Your task to perform on an android device: add a contact Image 0: 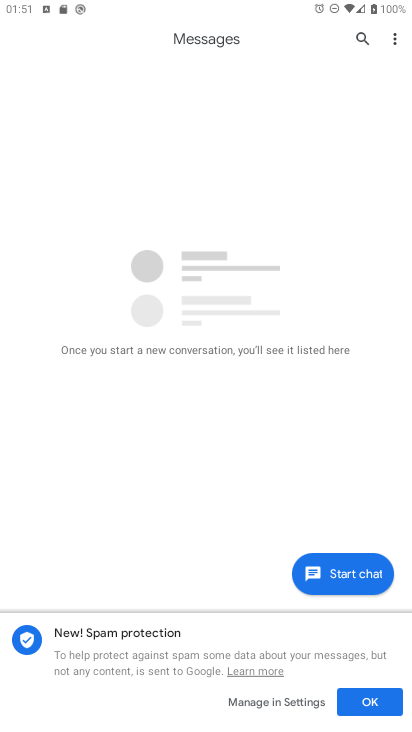
Step 0: press home button
Your task to perform on an android device: add a contact Image 1: 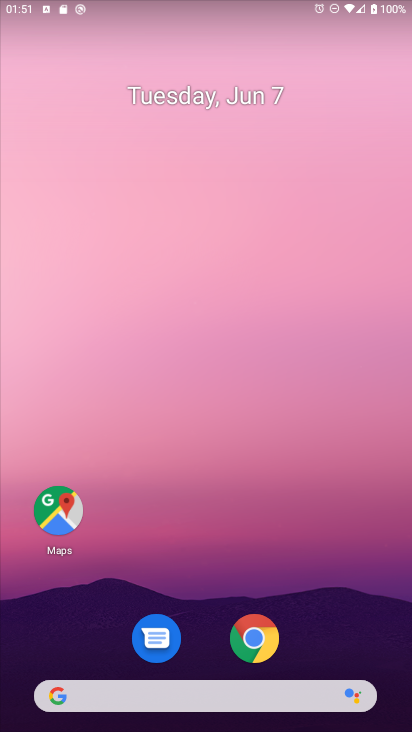
Step 1: drag from (198, 711) to (236, 229)
Your task to perform on an android device: add a contact Image 2: 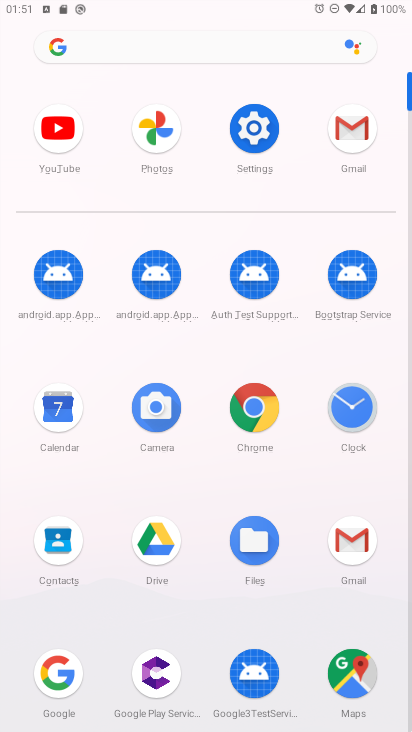
Step 2: drag from (199, 559) to (234, 347)
Your task to perform on an android device: add a contact Image 3: 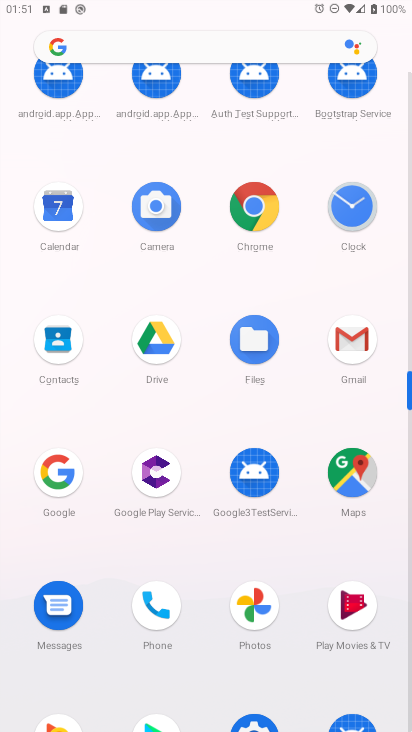
Step 3: drag from (210, 603) to (224, 282)
Your task to perform on an android device: add a contact Image 4: 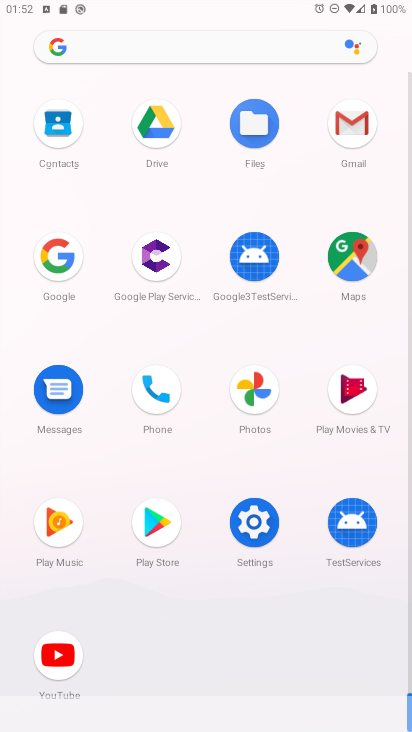
Step 4: click (170, 391)
Your task to perform on an android device: add a contact Image 5: 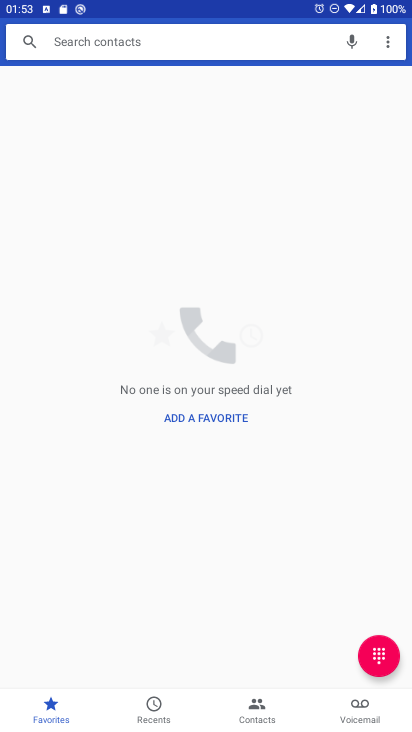
Step 5: click (256, 716)
Your task to perform on an android device: add a contact Image 6: 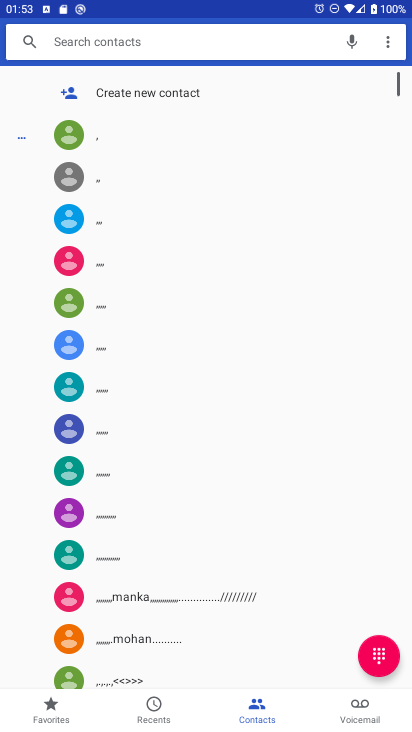
Step 6: click (116, 73)
Your task to perform on an android device: add a contact Image 7: 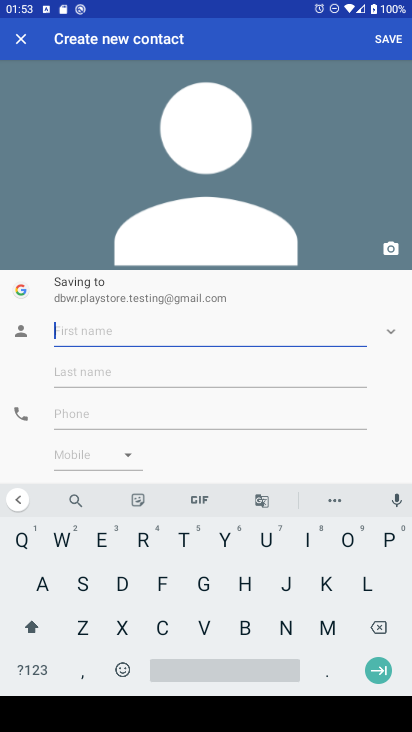
Step 7: click (122, 90)
Your task to perform on an android device: add a contact Image 8: 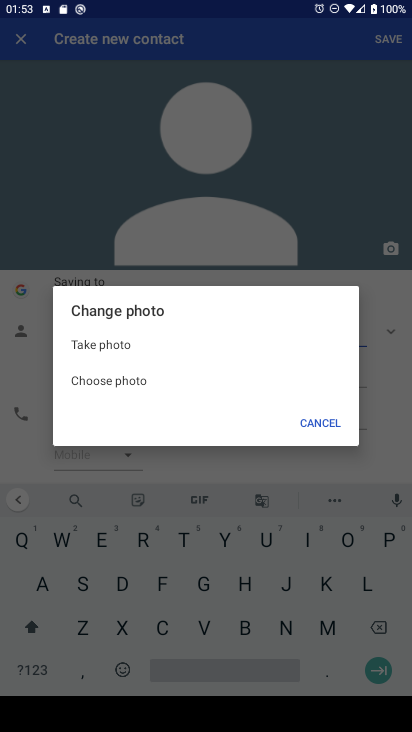
Step 8: click (145, 612)
Your task to perform on an android device: add a contact Image 9: 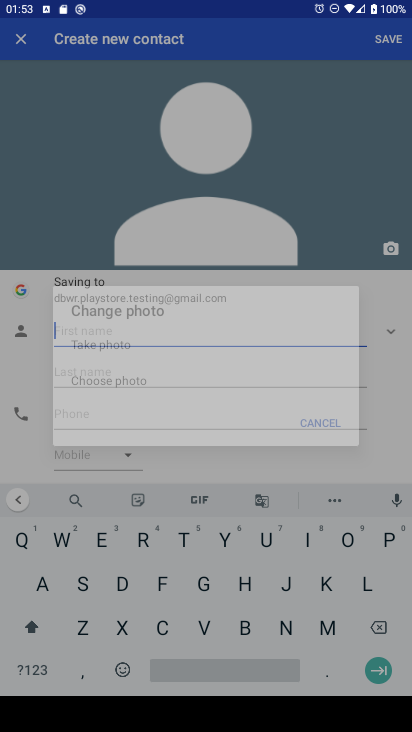
Step 9: click (242, 591)
Your task to perform on an android device: add a contact Image 10: 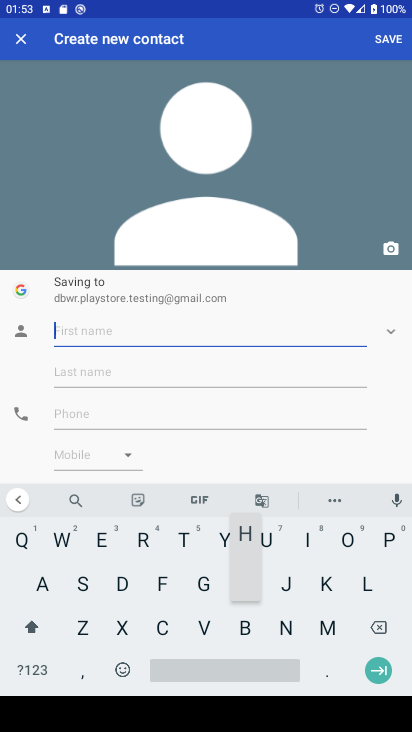
Step 10: click (67, 556)
Your task to perform on an android device: add a contact Image 11: 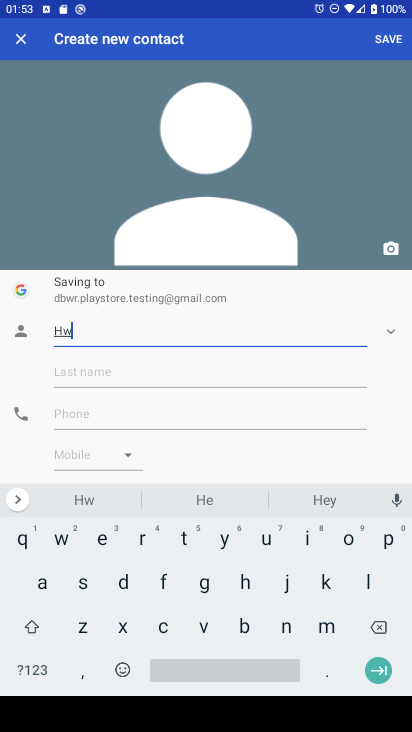
Step 11: click (326, 418)
Your task to perform on an android device: add a contact Image 12: 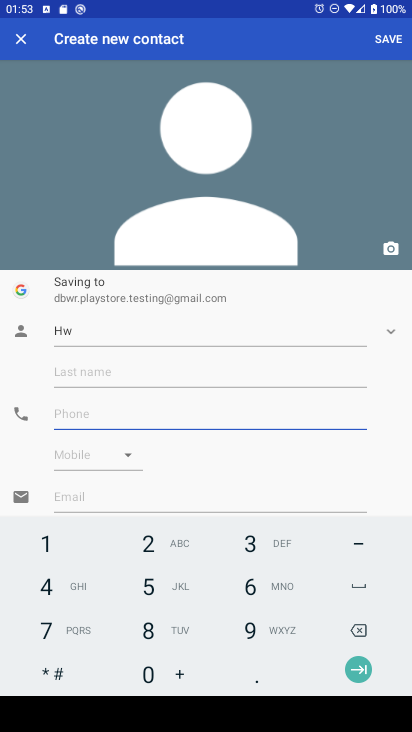
Step 12: click (229, 588)
Your task to perform on an android device: add a contact Image 13: 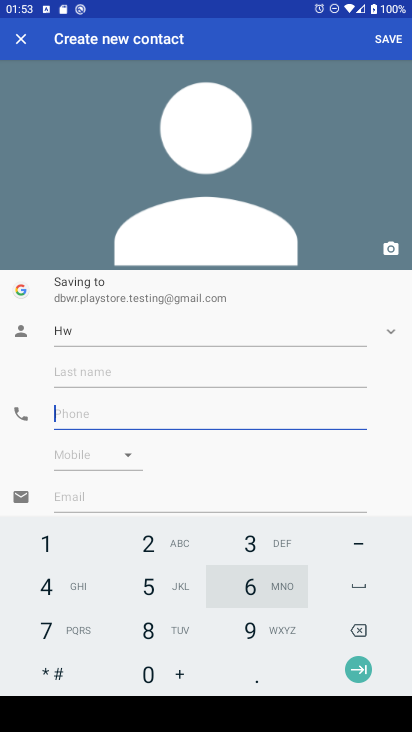
Step 13: click (165, 591)
Your task to perform on an android device: add a contact Image 14: 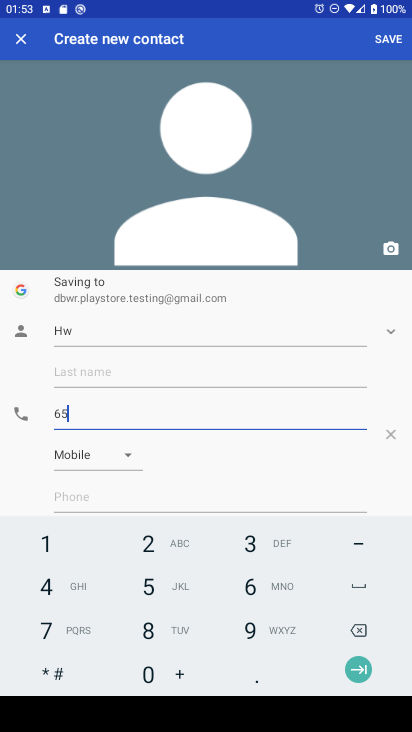
Step 14: click (138, 612)
Your task to perform on an android device: add a contact Image 15: 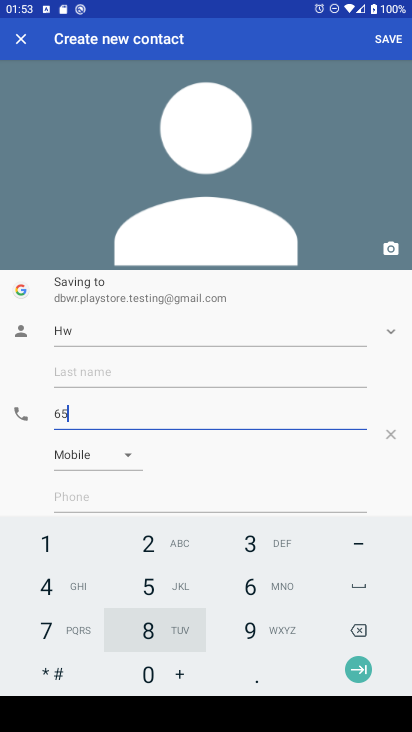
Step 15: click (235, 639)
Your task to perform on an android device: add a contact Image 16: 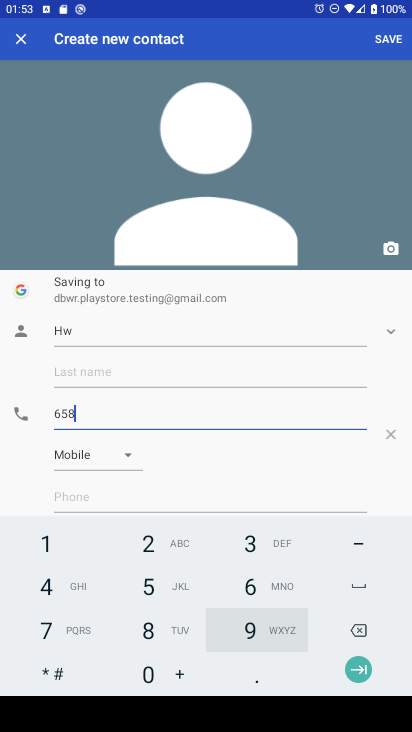
Step 16: click (117, 643)
Your task to perform on an android device: add a contact Image 17: 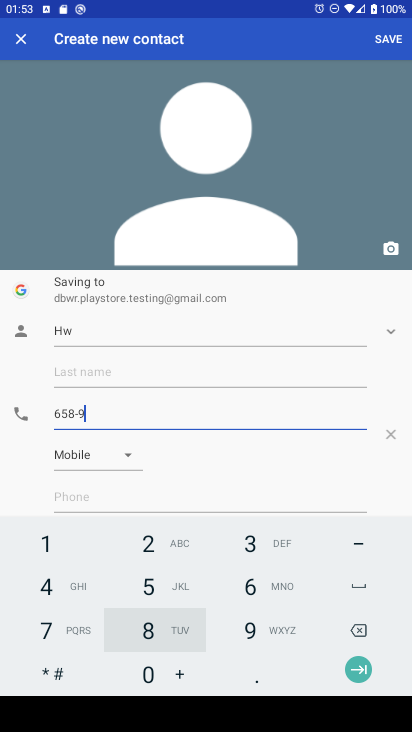
Step 17: click (117, 643)
Your task to perform on an android device: add a contact Image 18: 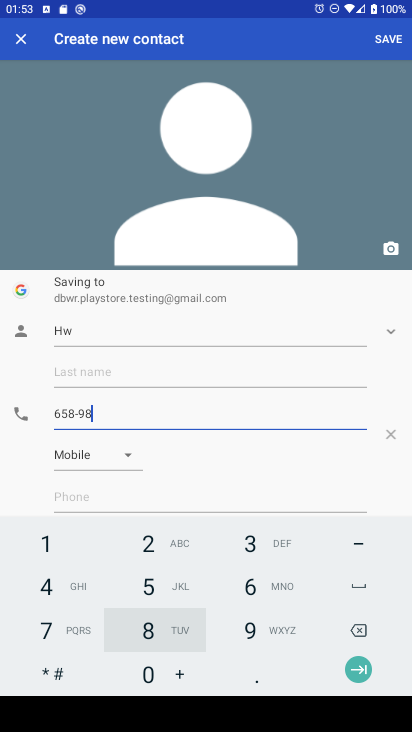
Step 18: click (150, 621)
Your task to perform on an android device: add a contact Image 19: 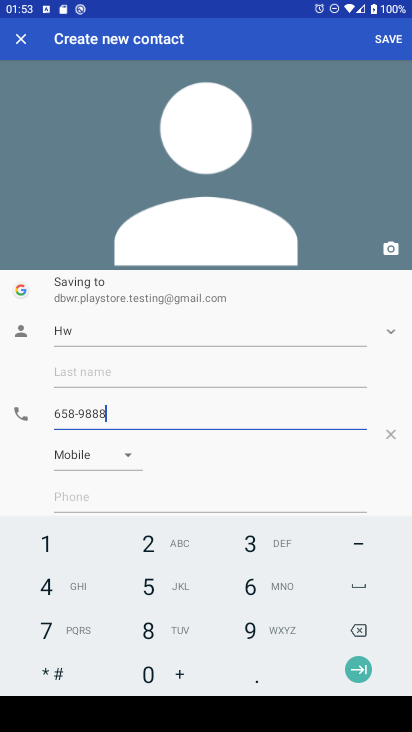
Step 19: click (142, 594)
Your task to perform on an android device: add a contact Image 20: 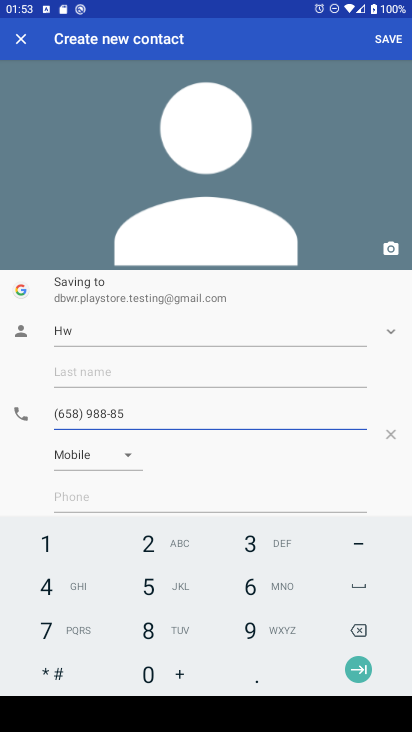
Step 20: click (384, 34)
Your task to perform on an android device: add a contact Image 21: 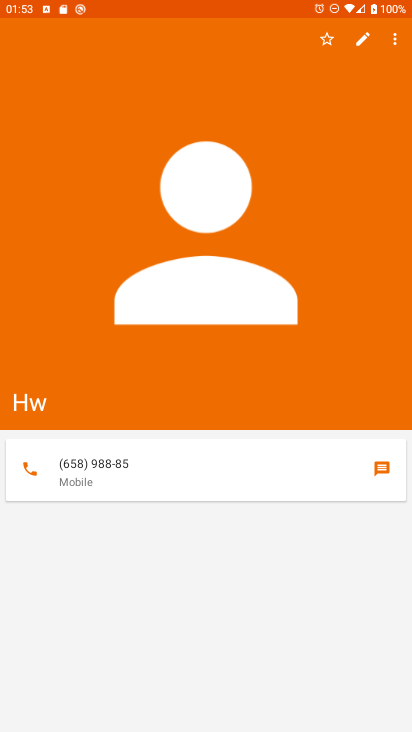
Step 21: task complete